Your task to perform on an android device: Add bose soundlink mini to the cart on costco, then select checkout. Image 0: 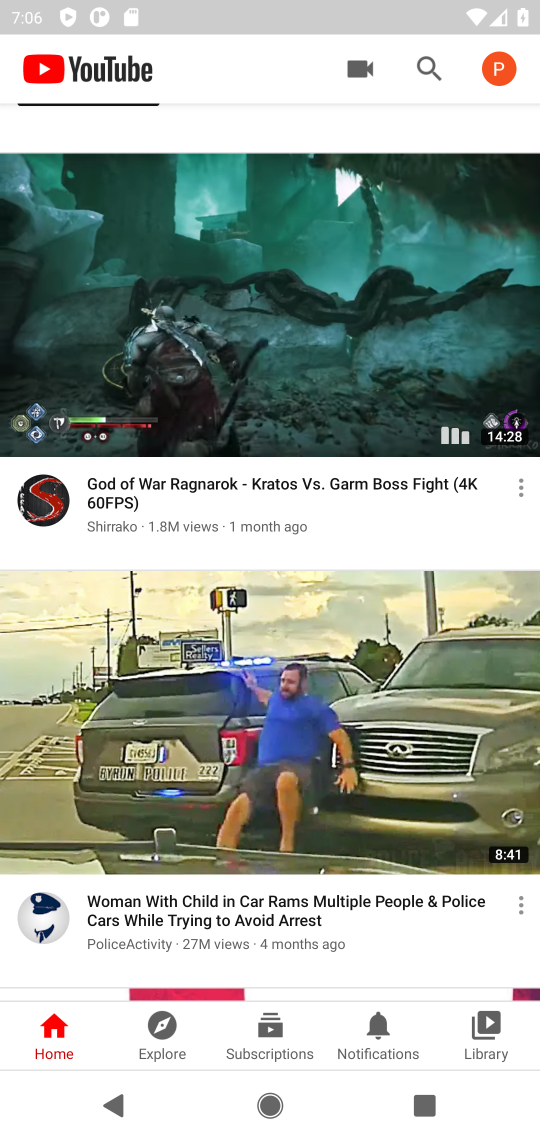
Step 0: click (425, 71)
Your task to perform on an android device: Add bose soundlink mini to the cart on costco, then select checkout. Image 1: 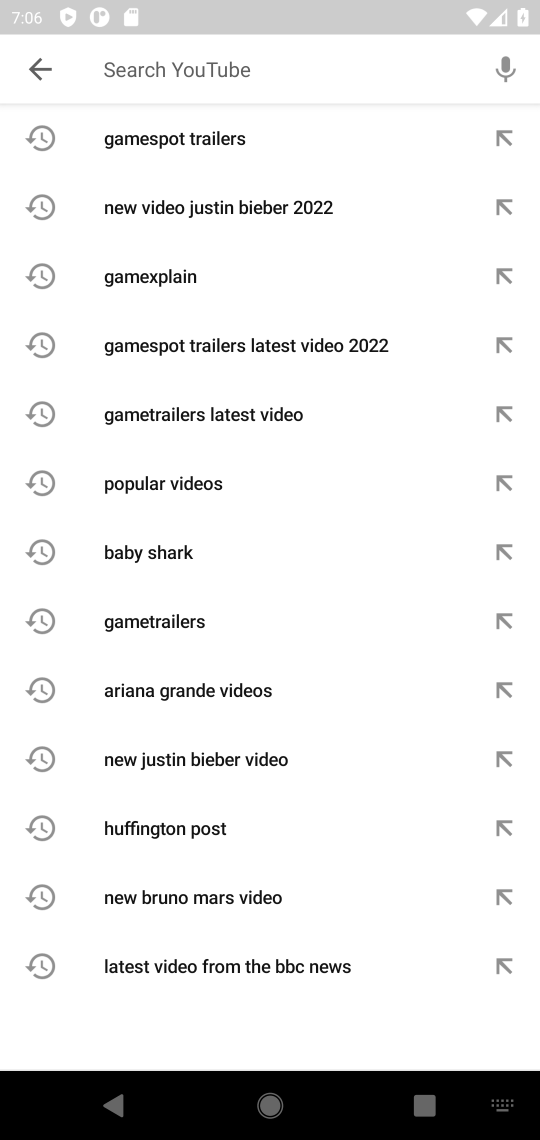
Step 1: press home button
Your task to perform on an android device: Add bose soundlink mini to the cart on costco, then select checkout. Image 2: 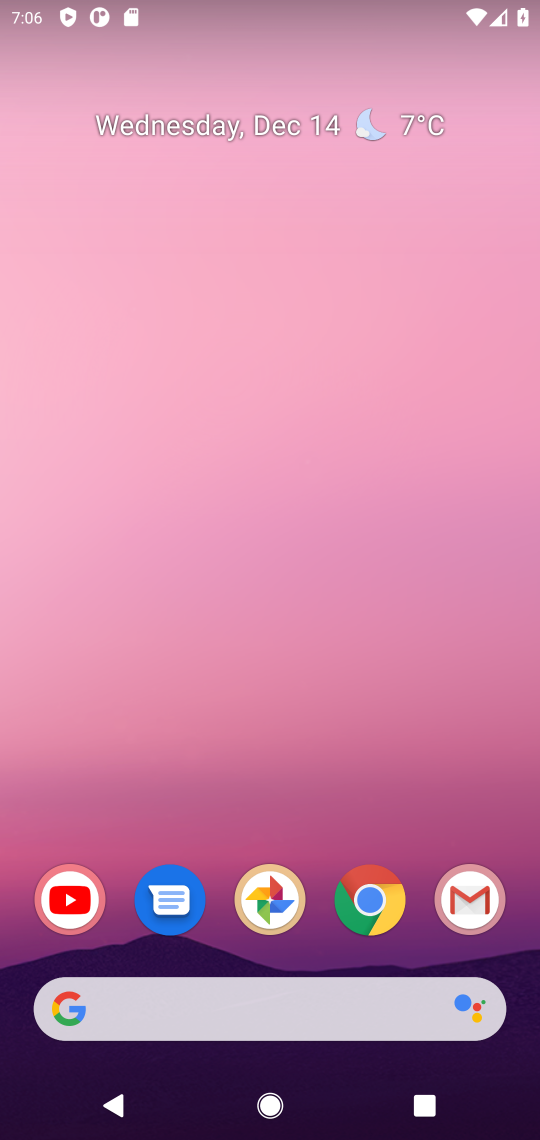
Step 2: click (292, 1010)
Your task to perform on an android device: Add bose soundlink mini to the cart on costco, then select checkout. Image 3: 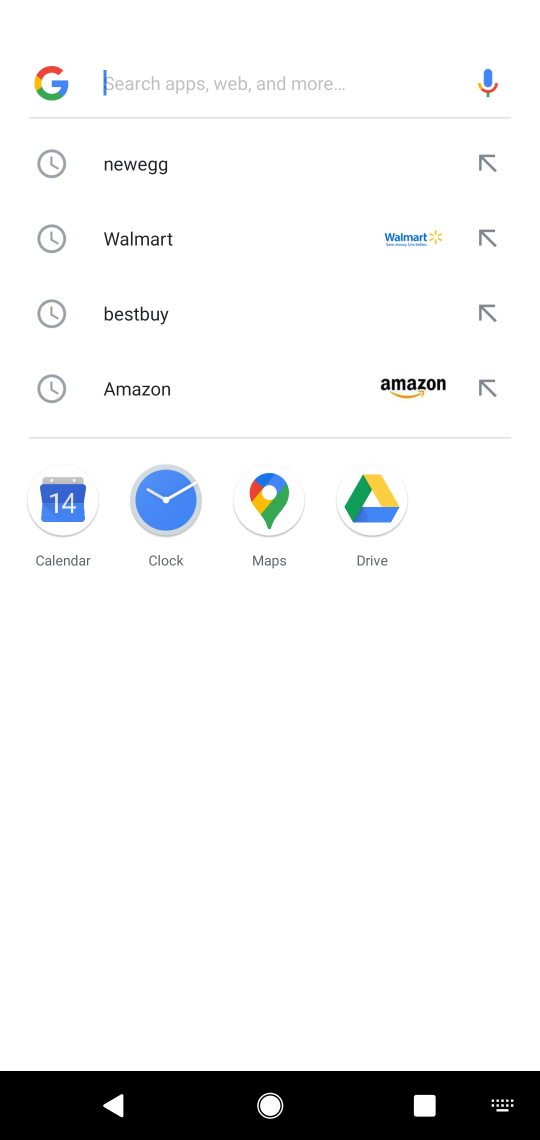
Step 3: type "costco"
Your task to perform on an android device: Add bose soundlink mini to the cart on costco, then select checkout. Image 4: 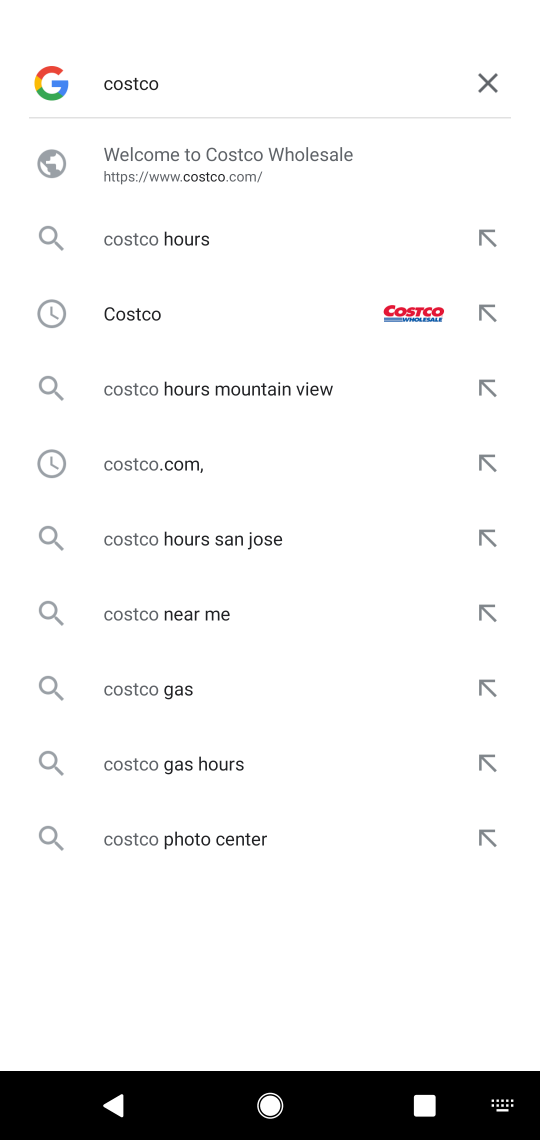
Step 4: click (305, 310)
Your task to perform on an android device: Add bose soundlink mini to the cart on costco, then select checkout. Image 5: 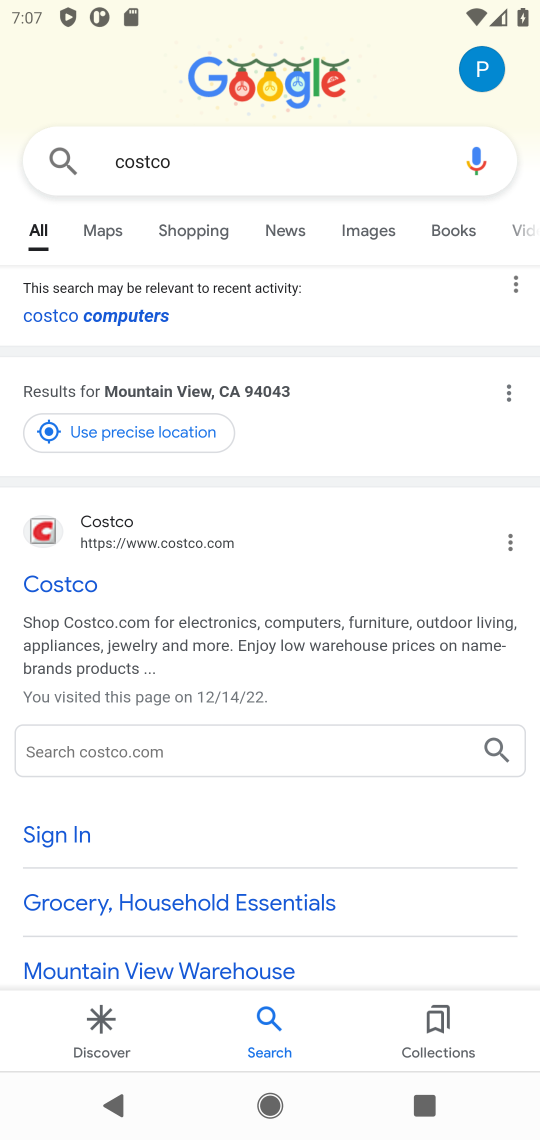
Step 5: click (89, 512)
Your task to perform on an android device: Add bose soundlink mini to the cart on costco, then select checkout. Image 6: 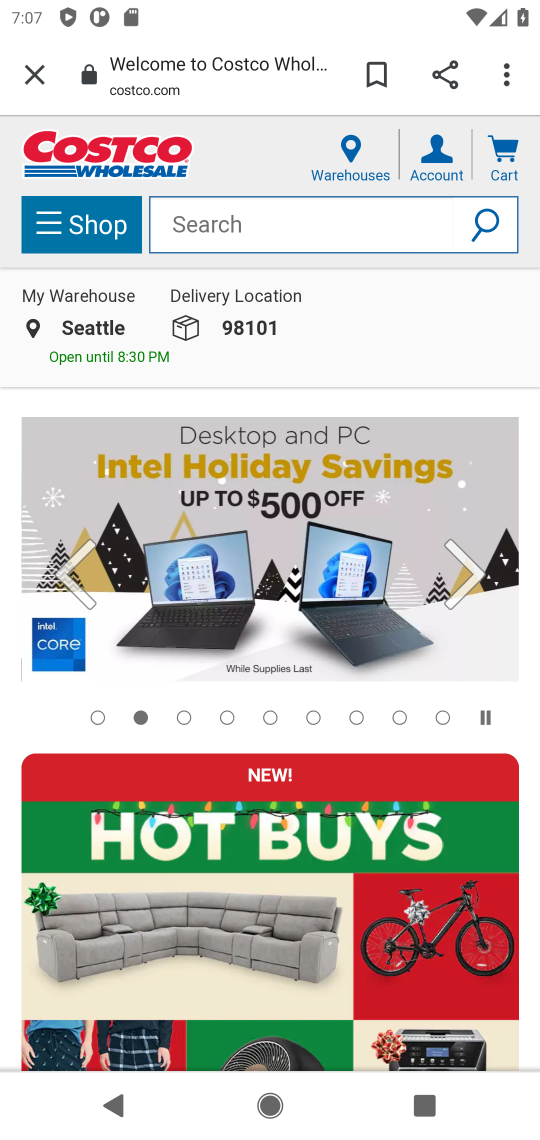
Step 6: click (226, 246)
Your task to perform on an android device: Add bose soundlink mini to the cart on costco, then select checkout. Image 7: 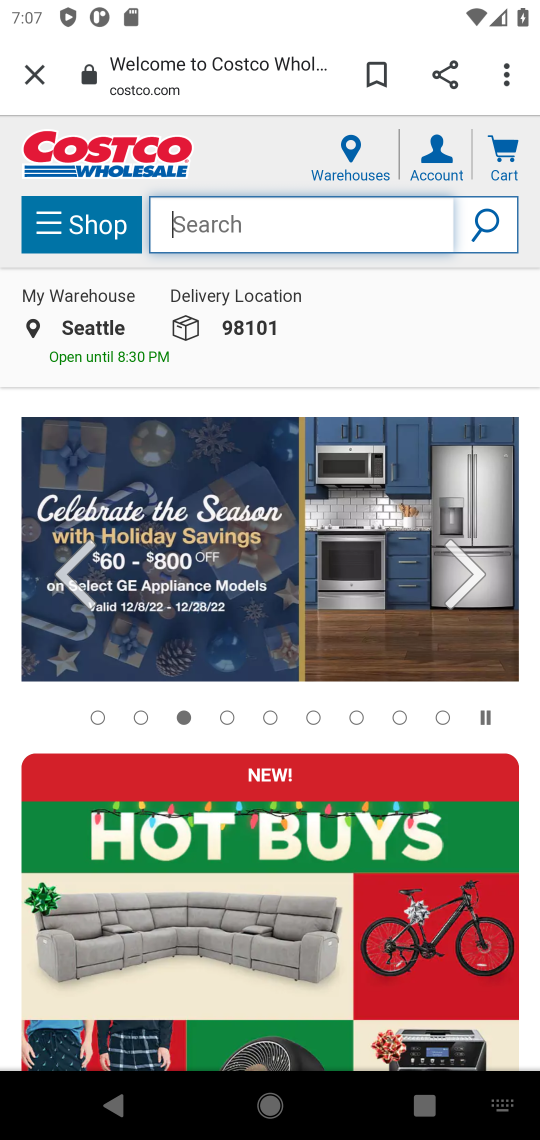
Step 7: type " bose soundlink mini "
Your task to perform on an android device: Add bose soundlink mini to the cart on costco, then select checkout. Image 8: 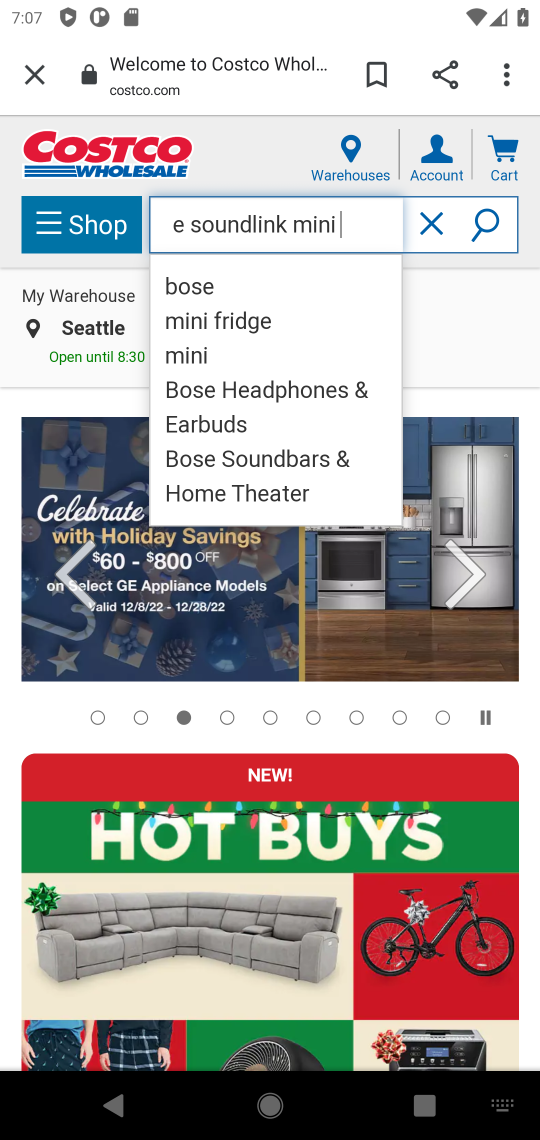
Step 8: click (474, 212)
Your task to perform on an android device: Add bose soundlink mini to the cart on costco, then select checkout. Image 9: 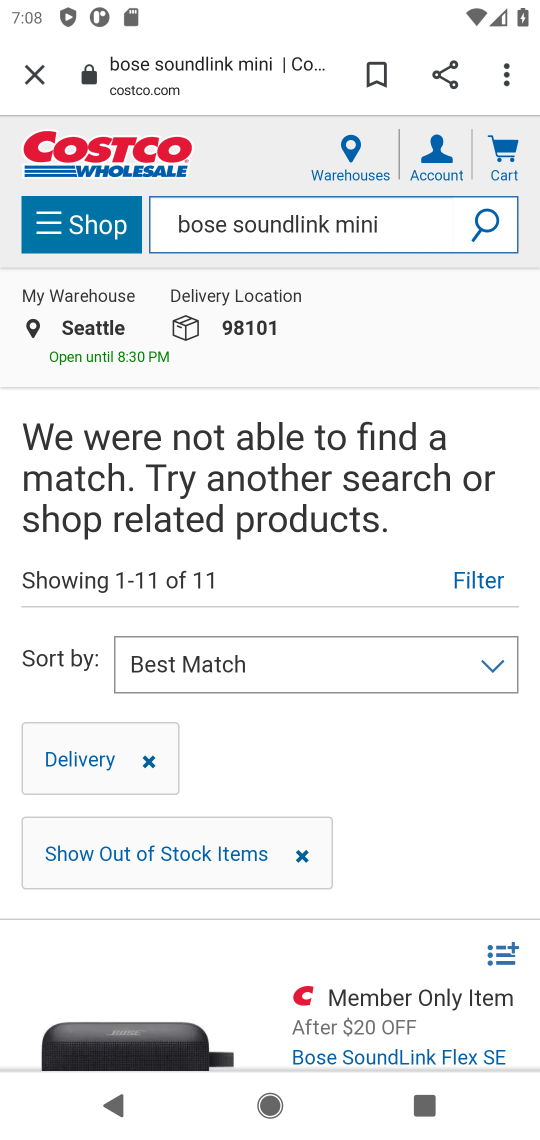
Step 9: task complete